Your task to perform on an android device: search for starred emails in the gmail app Image 0: 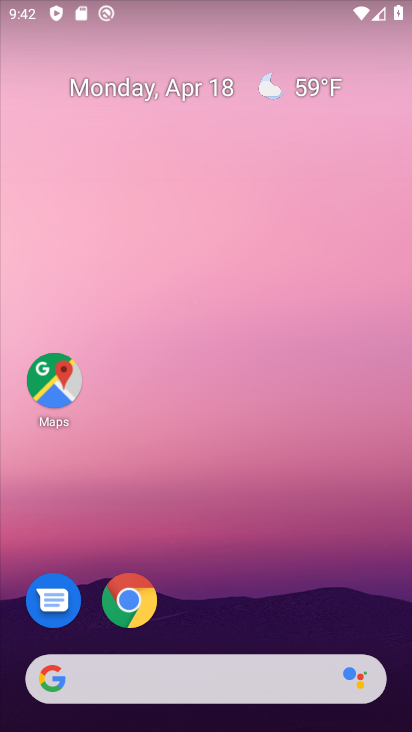
Step 0: drag from (256, 555) to (246, 0)
Your task to perform on an android device: search for starred emails in the gmail app Image 1: 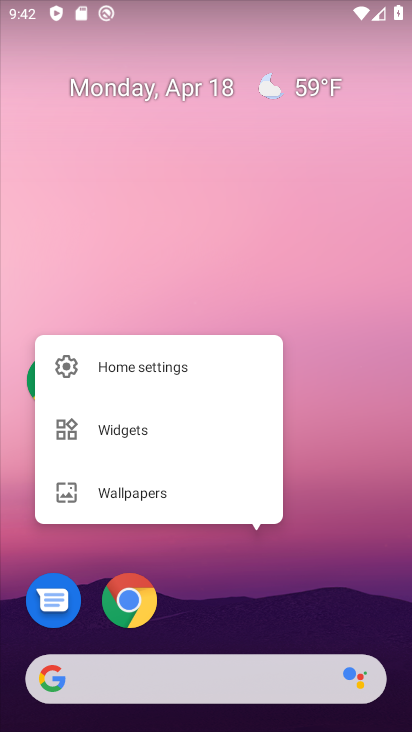
Step 1: click (238, 580)
Your task to perform on an android device: search for starred emails in the gmail app Image 2: 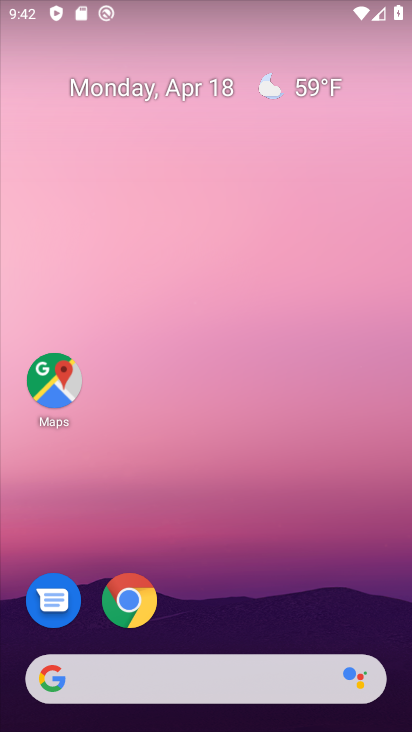
Step 2: drag from (227, 602) to (249, 7)
Your task to perform on an android device: search for starred emails in the gmail app Image 3: 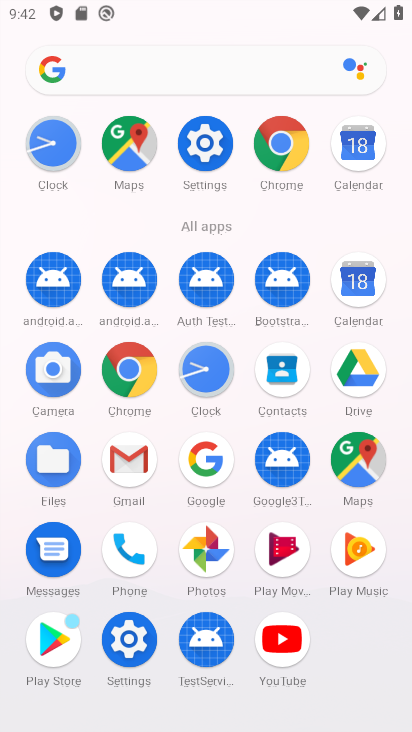
Step 3: click (129, 451)
Your task to perform on an android device: search for starred emails in the gmail app Image 4: 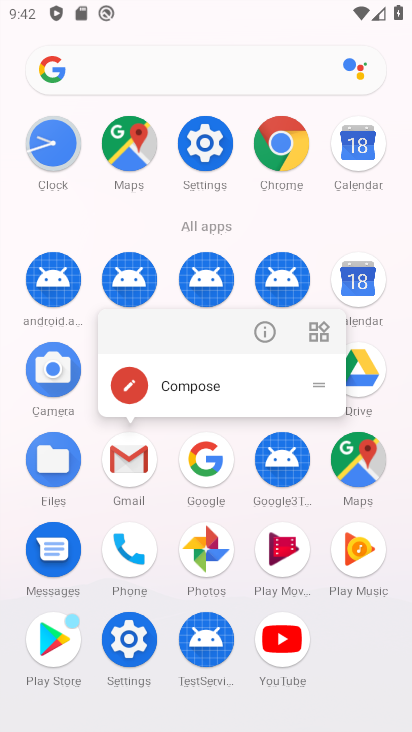
Step 4: click (129, 451)
Your task to perform on an android device: search for starred emails in the gmail app Image 5: 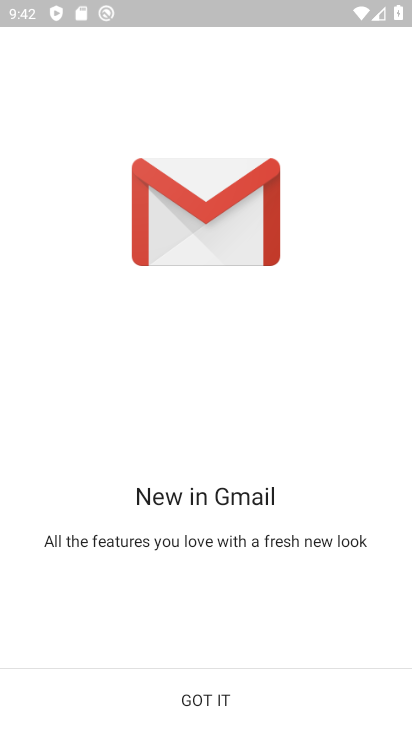
Step 5: click (208, 696)
Your task to perform on an android device: search for starred emails in the gmail app Image 6: 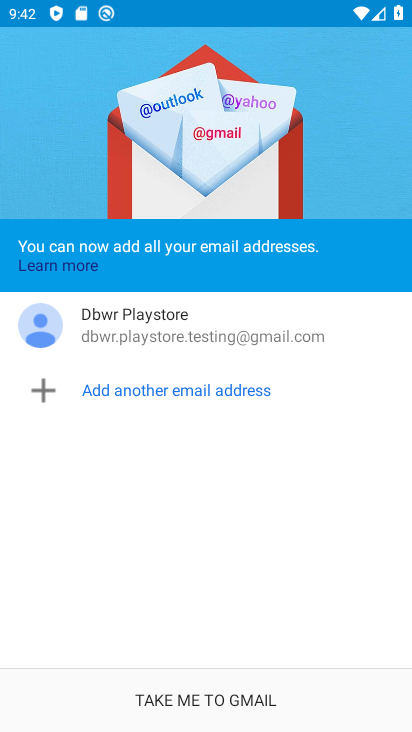
Step 6: click (208, 696)
Your task to perform on an android device: search for starred emails in the gmail app Image 7: 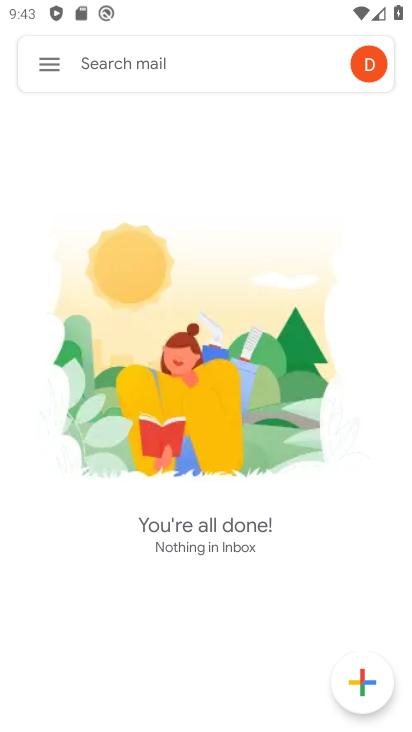
Step 7: click (40, 67)
Your task to perform on an android device: search for starred emails in the gmail app Image 8: 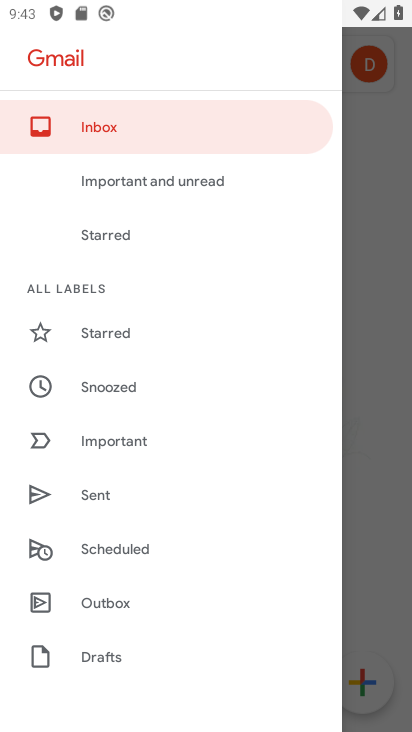
Step 8: click (115, 333)
Your task to perform on an android device: search for starred emails in the gmail app Image 9: 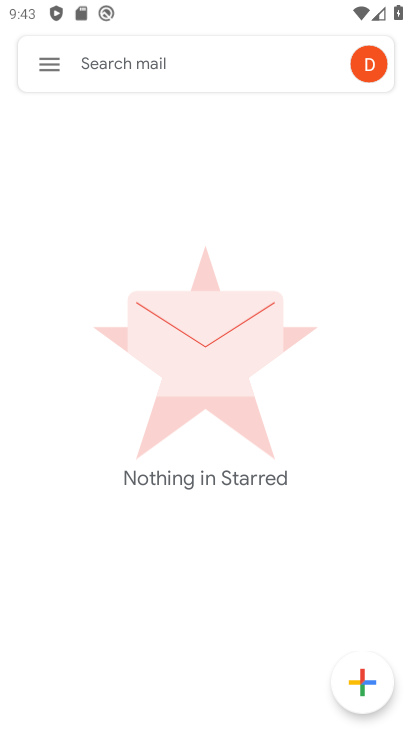
Step 9: task complete